Your task to perform on an android device: turn on the 24-hour format for clock Image 0: 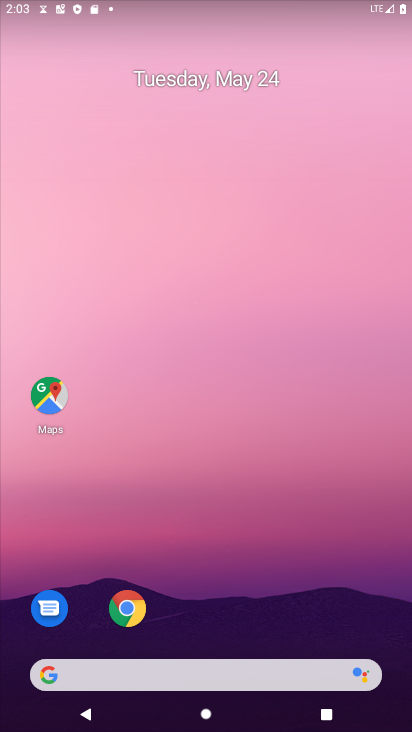
Step 0: drag from (303, 632) to (272, 128)
Your task to perform on an android device: turn on the 24-hour format for clock Image 1: 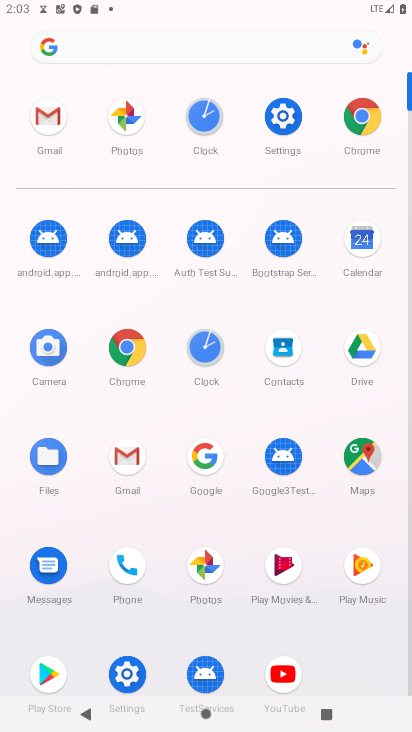
Step 1: click (211, 130)
Your task to perform on an android device: turn on the 24-hour format for clock Image 2: 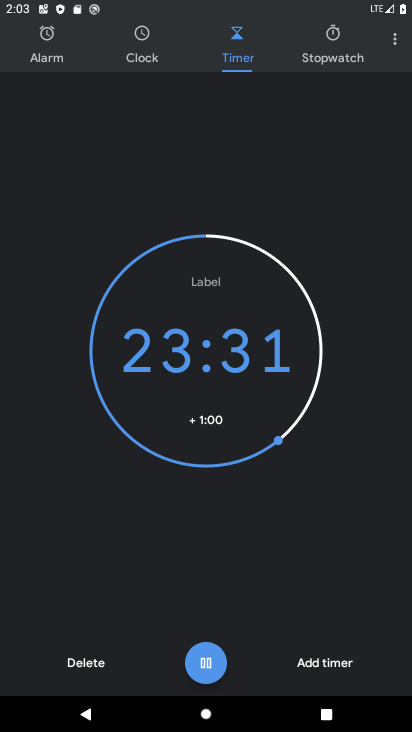
Step 2: click (389, 59)
Your task to perform on an android device: turn on the 24-hour format for clock Image 3: 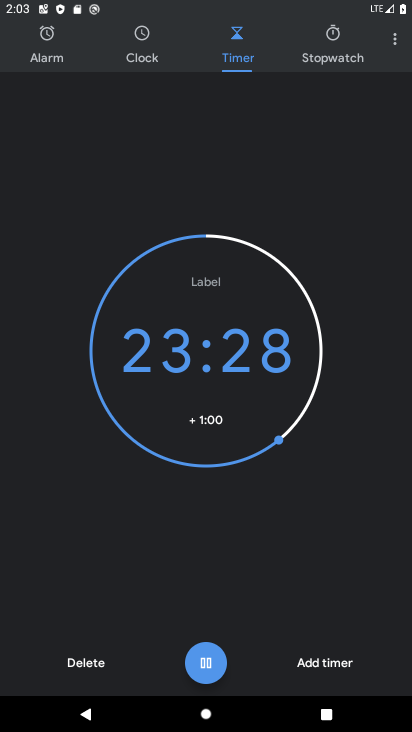
Step 3: click (392, 51)
Your task to perform on an android device: turn on the 24-hour format for clock Image 4: 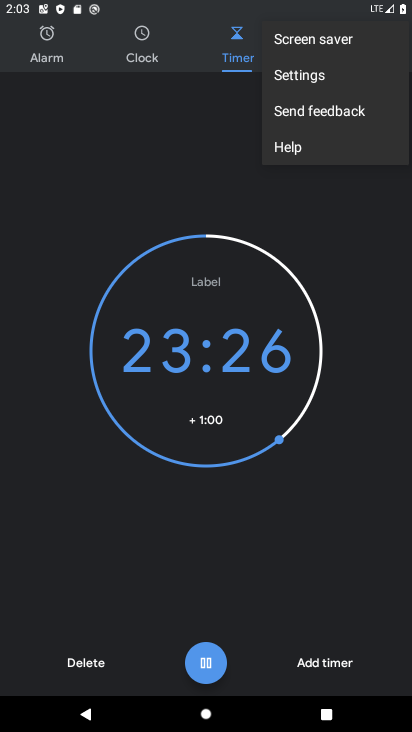
Step 4: click (360, 69)
Your task to perform on an android device: turn on the 24-hour format for clock Image 5: 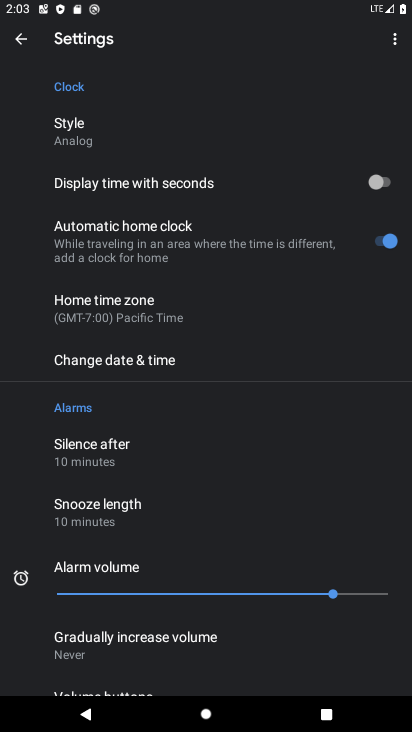
Step 5: click (229, 356)
Your task to perform on an android device: turn on the 24-hour format for clock Image 6: 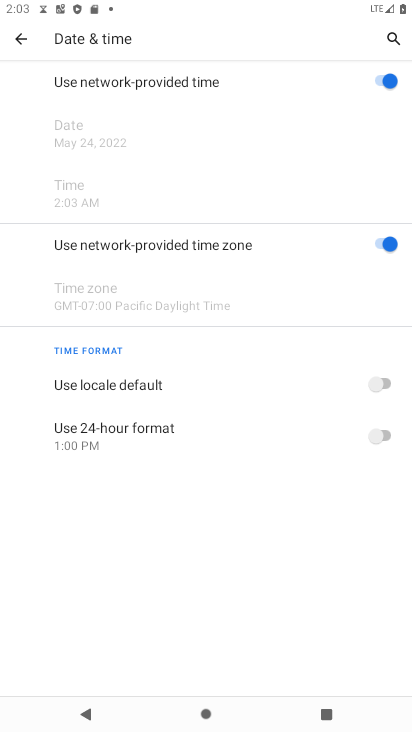
Step 6: click (391, 437)
Your task to perform on an android device: turn on the 24-hour format for clock Image 7: 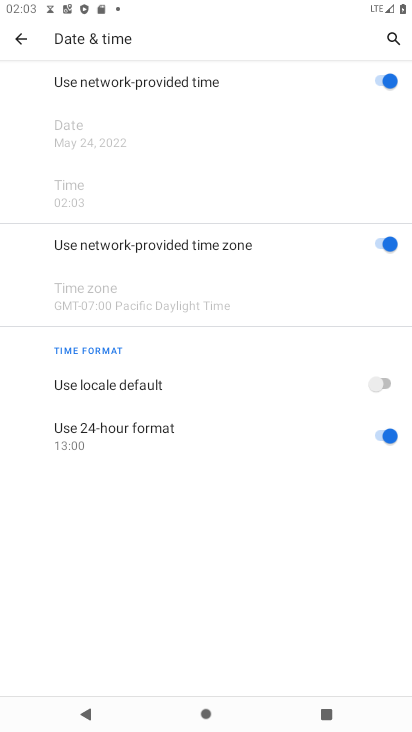
Step 7: task complete